Your task to perform on an android device: Clear the shopping cart on target.com. Search for apple airpods pro on target.com, select the first entry, add it to the cart, then select checkout. Image 0: 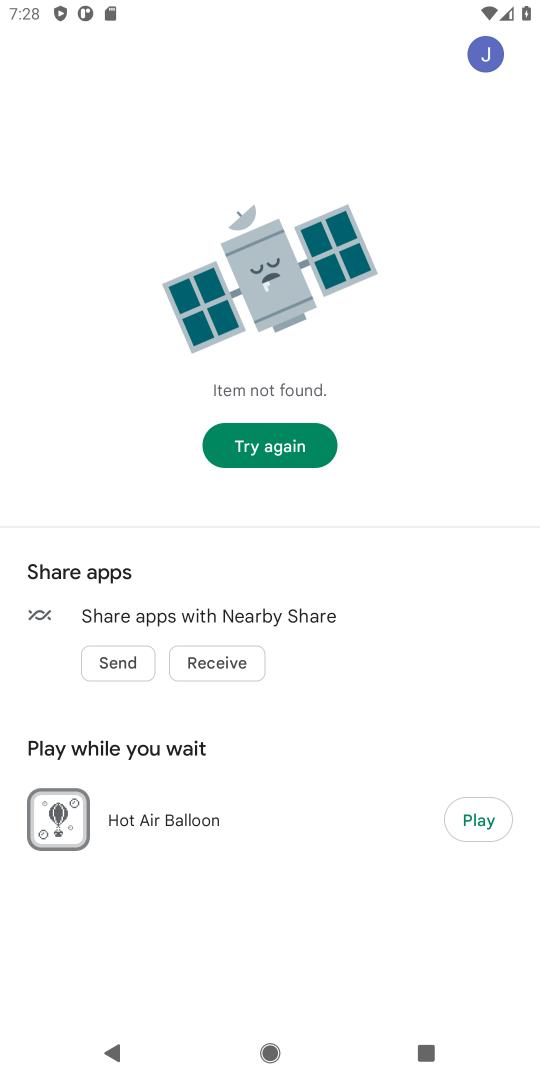
Step 0: press home button
Your task to perform on an android device: Clear the shopping cart on target.com. Search for apple airpods pro on target.com, select the first entry, add it to the cart, then select checkout. Image 1: 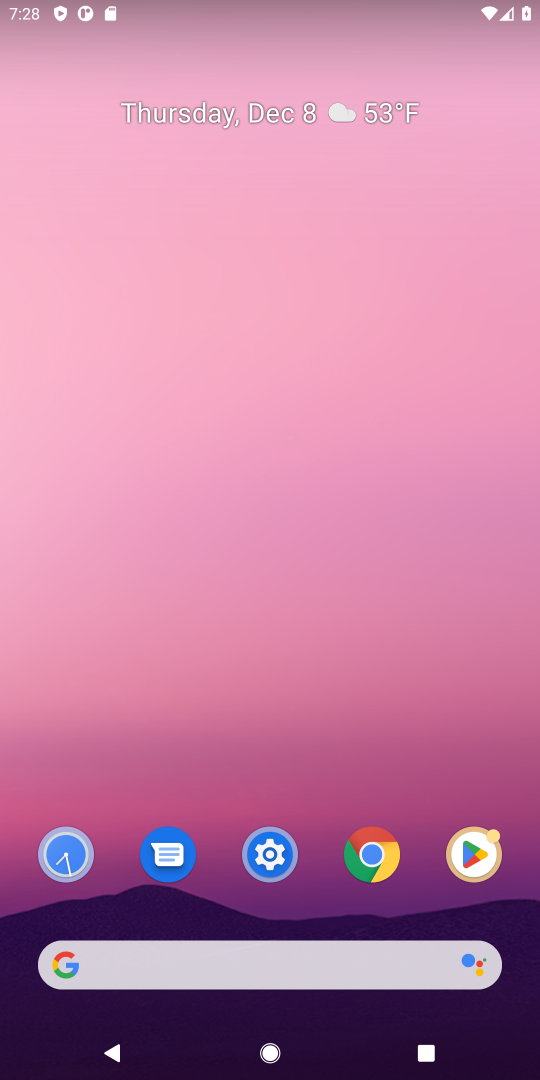
Step 1: click (98, 958)
Your task to perform on an android device: Clear the shopping cart on target.com. Search for apple airpods pro on target.com, select the first entry, add it to the cart, then select checkout. Image 2: 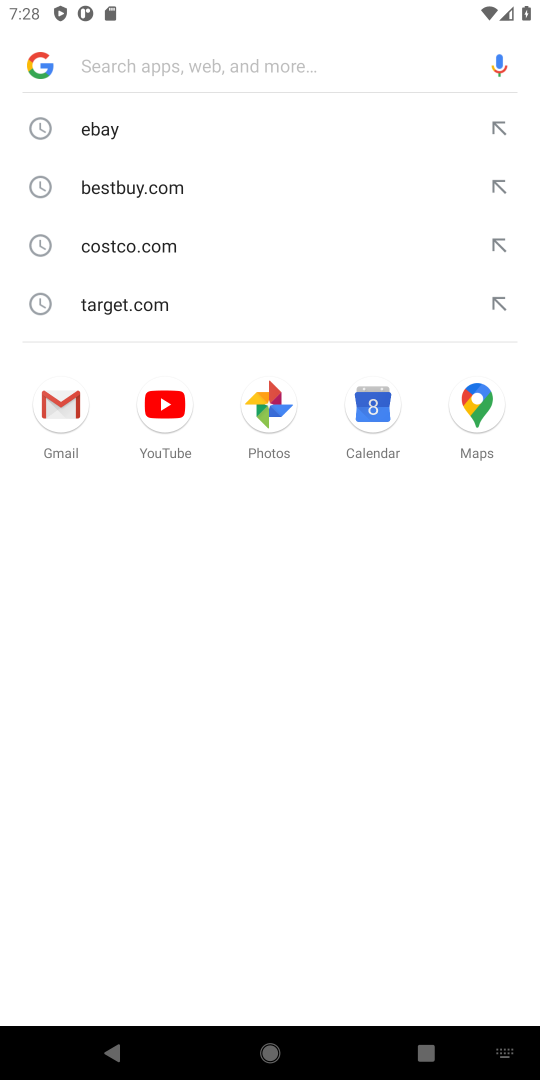
Step 2: type "target.com"
Your task to perform on an android device: Clear the shopping cart on target.com. Search for apple airpods pro on target.com, select the first entry, add it to the cart, then select checkout. Image 3: 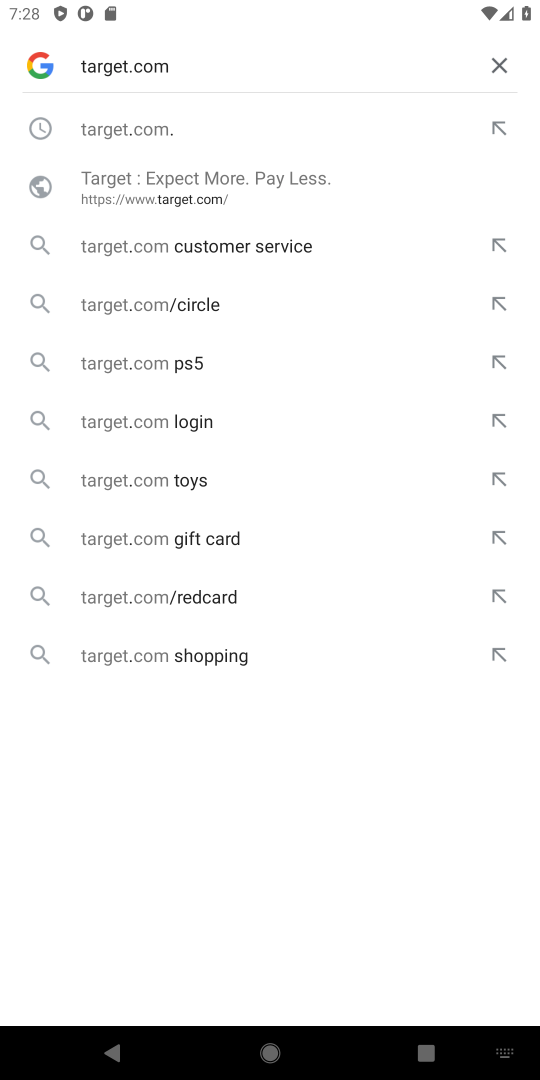
Step 3: press enter
Your task to perform on an android device: Clear the shopping cart on target.com. Search for apple airpods pro on target.com, select the first entry, add it to the cart, then select checkout. Image 4: 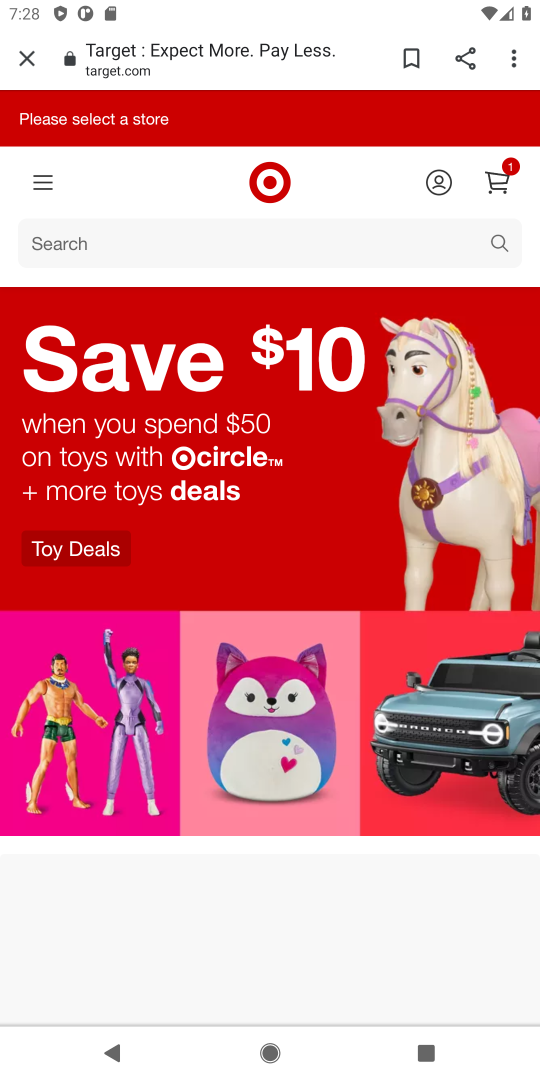
Step 4: click (503, 179)
Your task to perform on an android device: Clear the shopping cart on target.com. Search for apple airpods pro on target.com, select the first entry, add it to the cart, then select checkout. Image 5: 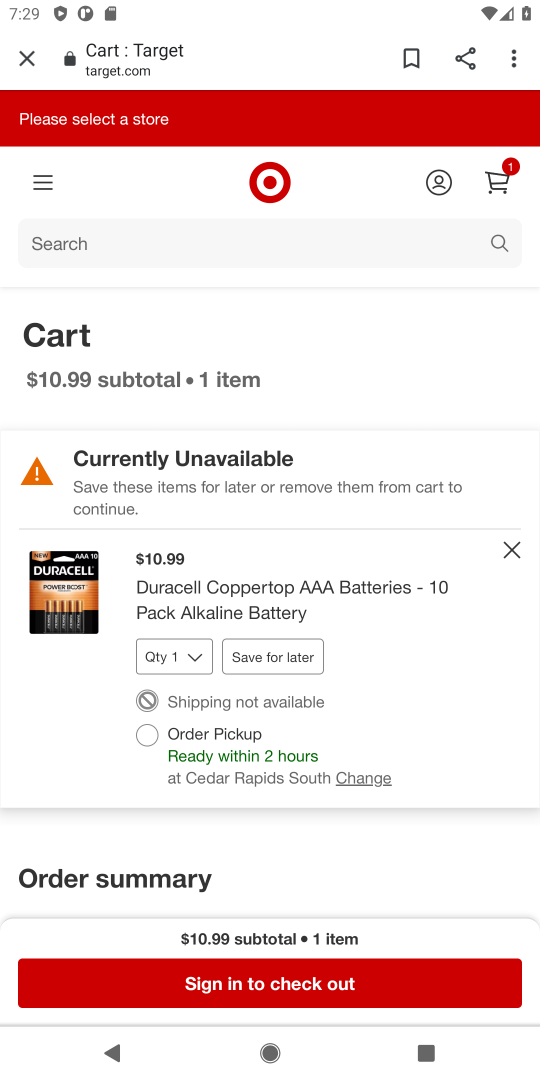
Step 5: click (506, 549)
Your task to perform on an android device: Clear the shopping cart on target.com. Search for apple airpods pro on target.com, select the first entry, add it to the cart, then select checkout. Image 6: 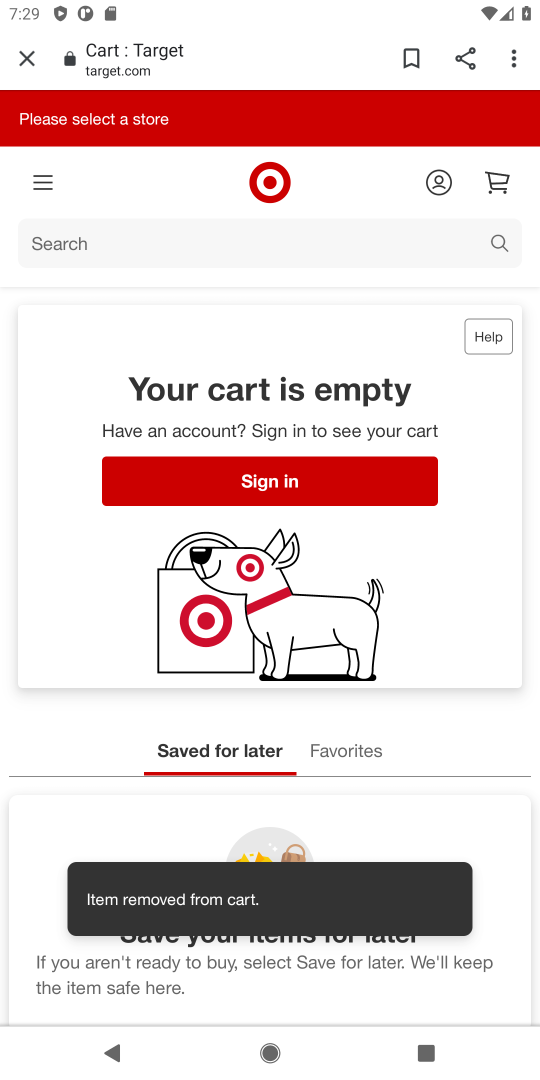
Step 6: click (129, 241)
Your task to perform on an android device: Clear the shopping cart on target.com. Search for apple airpods pro on target.com, select the first entry, add it to the cart, then select checkout. Image 7: 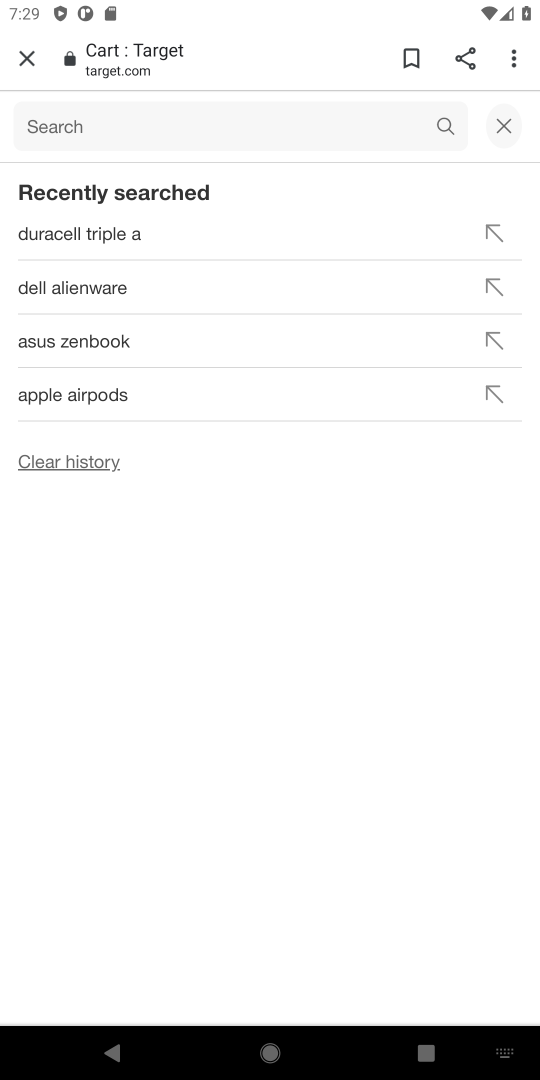
Step 7: type "apple airpods"
Your task to perform on an android device: Clear the shopping cart on target.com. Search for apple airpods pro on target.com, select the first entry, add it to the cart, then select checkout. Image 8: 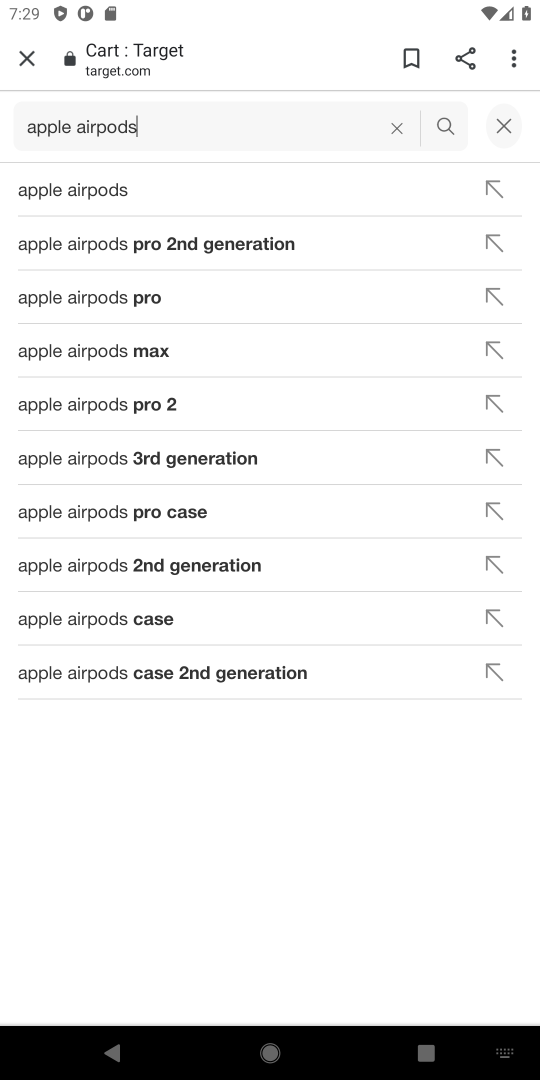
Step 8: press enter
Your task to perform on an android device: Clear the shopping cart on target.com. Search for apple airpods pro on target.com, select the first entry, add it to the cart, then select checkout. Image 9: 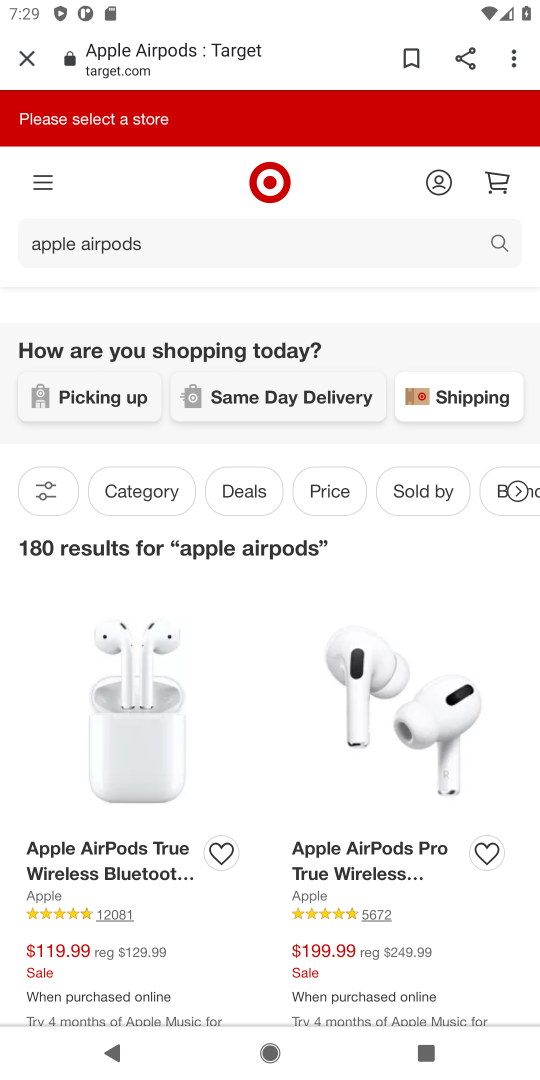
Step 9: click (84, 860)
Your task to perform on an android device: Clear the shopping cart on target.com. Search for apple airpods pro on target.com, select the first entry, add it to the cart, then select checkout. Image 10: 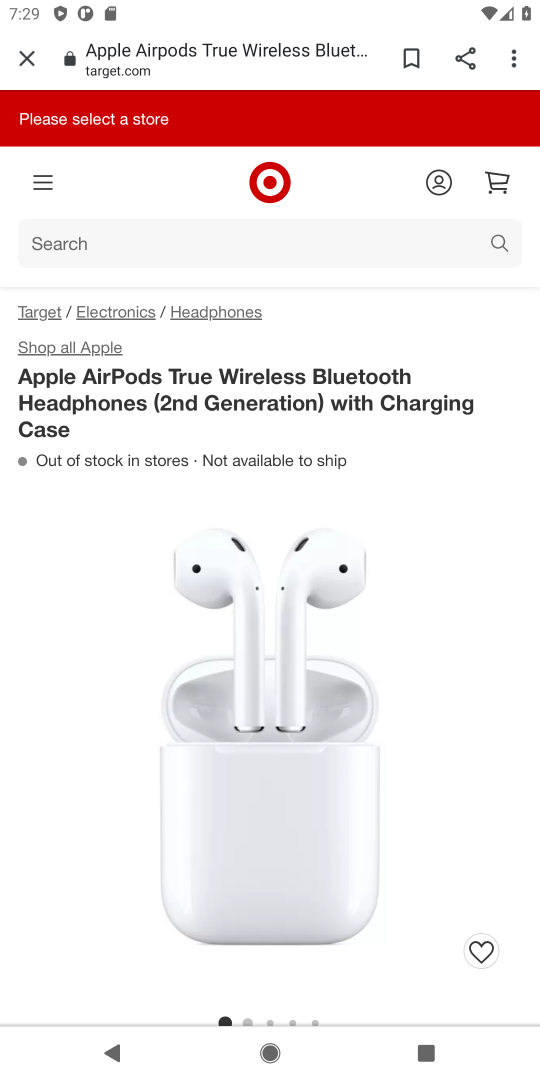
Step 10: drag from (288, 942) to (332, 500)
Your task to perform on an android device: Clear the shopping cart on target.com. Search for apple airpods pro on target.com, select the first entry, add it to the cart, then select checkout. Image 11: 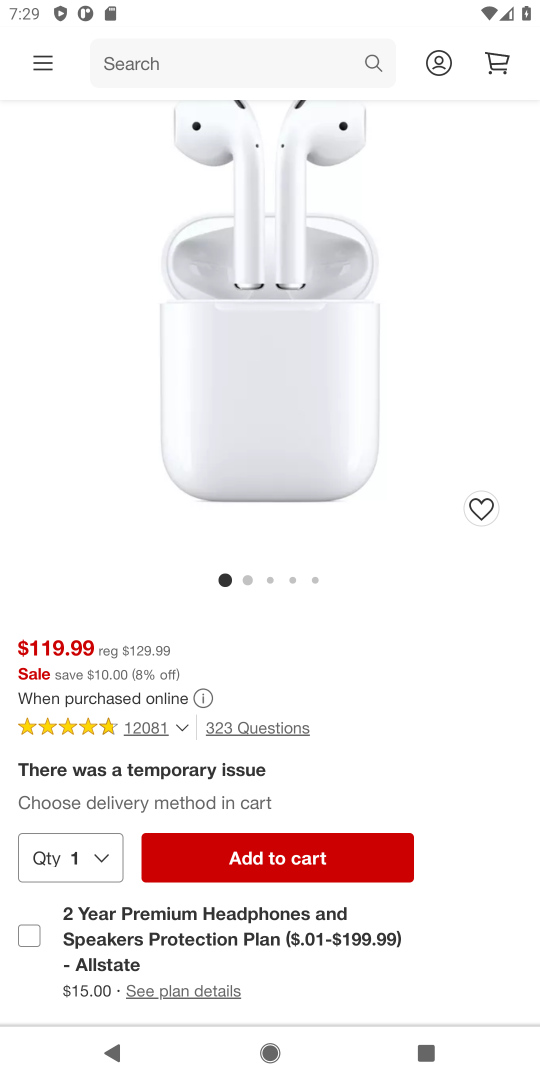
Step 11: click (272, 863)
Your task to perform on an android device: Clear the shopping cart on target.com. Search for apple airpods pro on target.com, select the first entry, add it to the cart, then select checkout. Image 12: 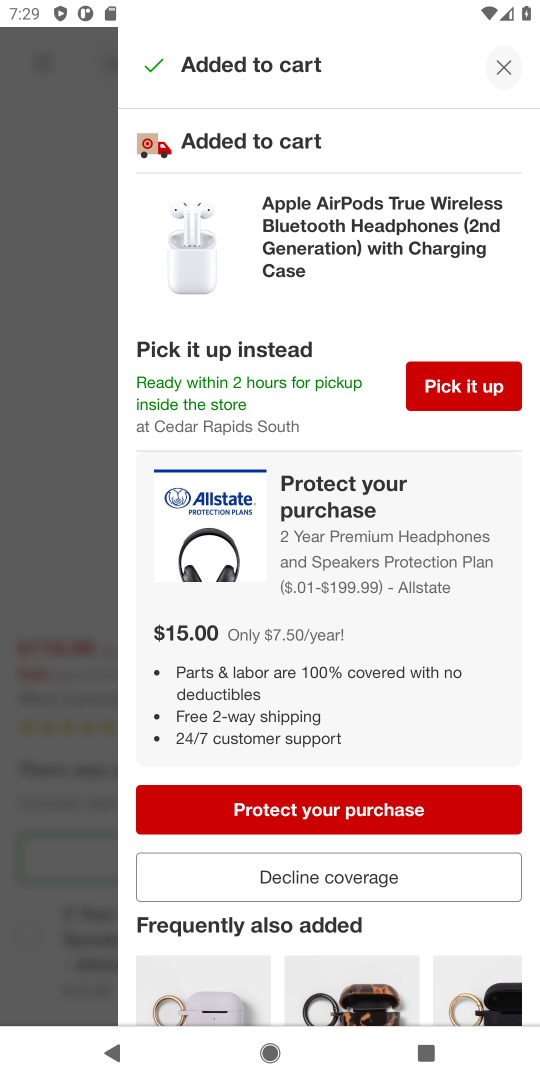
Step 12: task complete